Your task to perform on an android device: see tabs open on other devices in the chrome app Image 0: 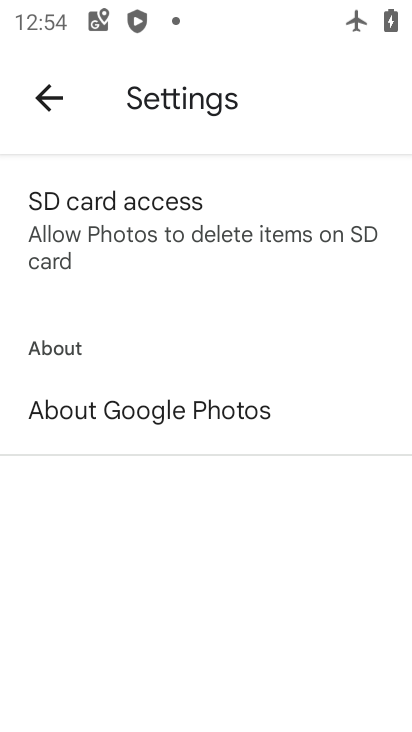
Step 0: press home button
Your task to perform on an android device: see tabs open on other devices in the chrome app Image 1: 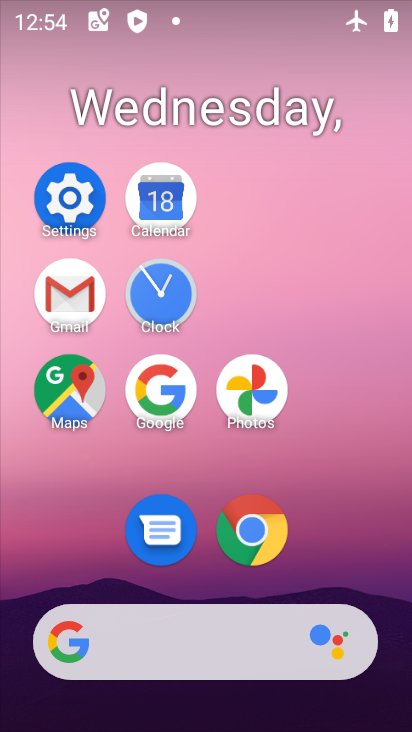
Step 1: click (245, 519)
Your task to perform on an android device: see tabs open on other devices in the chrome app Image 2: 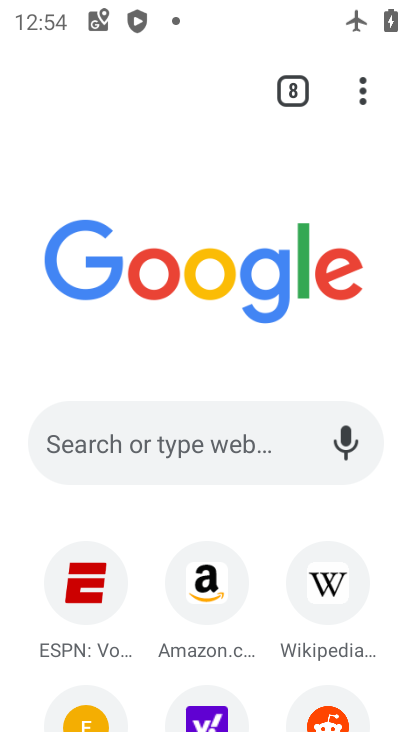
Step 2: click (377, 97)
Your task to perform on an android device: see tabs open on other devices in the chrome app Image 3: 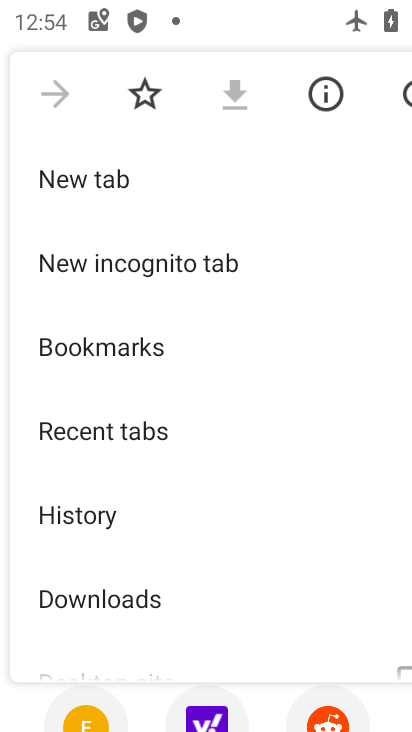
Step 3: click (86, 399)
Your task to perform on an android device: see tabs open on other devices in the chrome app Image 4: 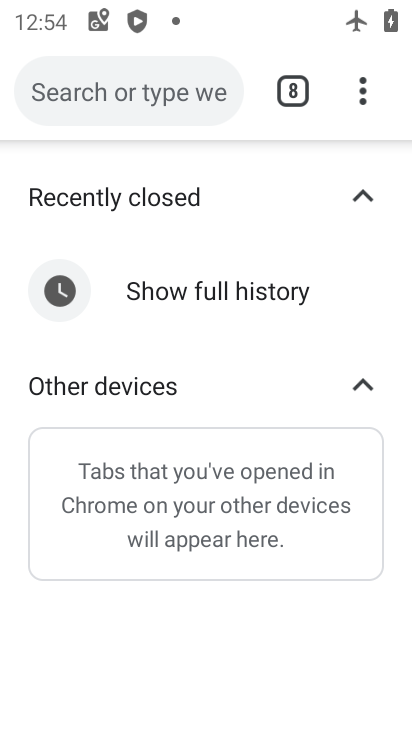
Step 4: click (182, 272)
Your task to perform on an android device: see tabs open on other devices in the chrome app Image 5: 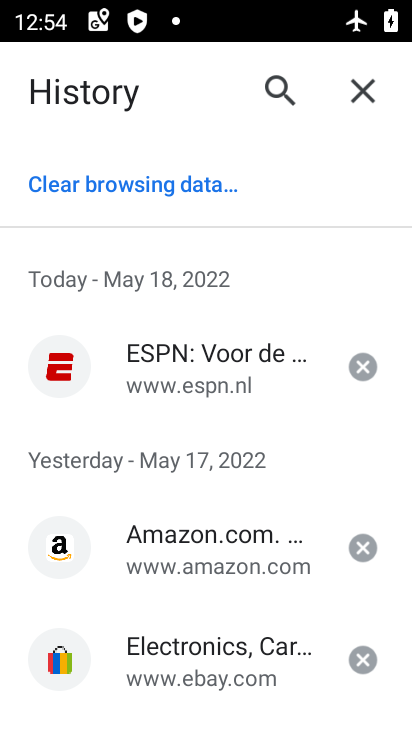
Step 5: task complete